Your task to perform on an android device: Open Maps and search for coffee Image 0: 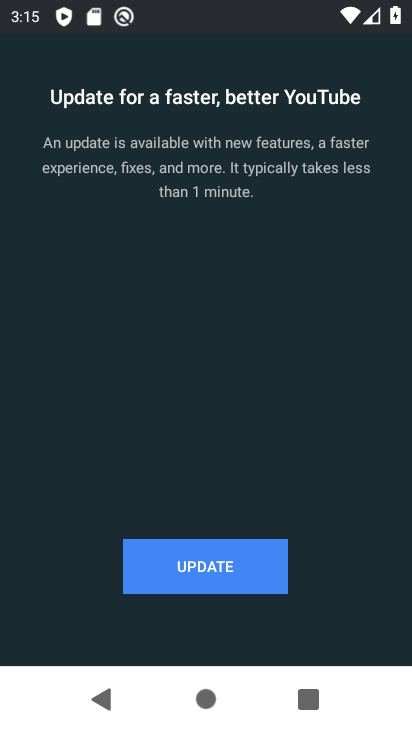
Step 0: press home button
Your task to perform on an android device: Open Maps and search for coffee Image 1: 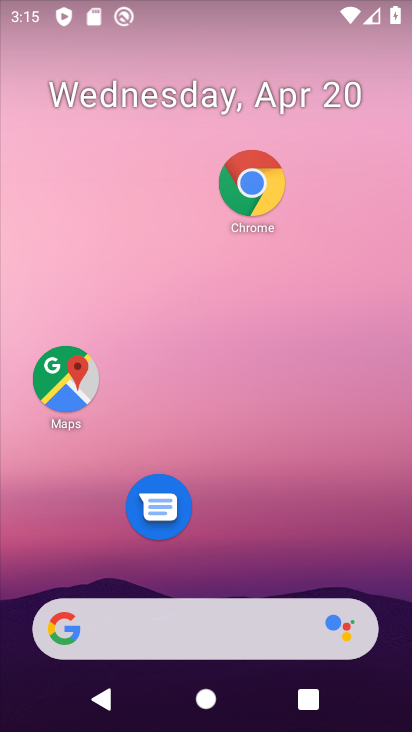
Step 1: click (86, 374)
Your task to perform on an android device: Open Maps and search for coffee Image 2: 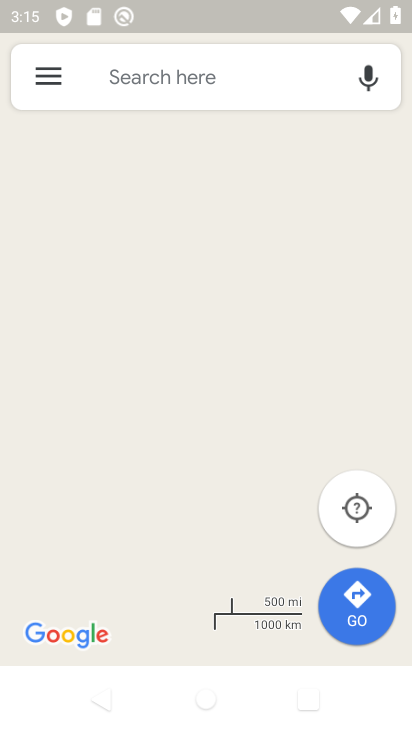
Step 2: click (196, 84)
Your task to perform on an android device: Open Maps and search for coffee Image 3: 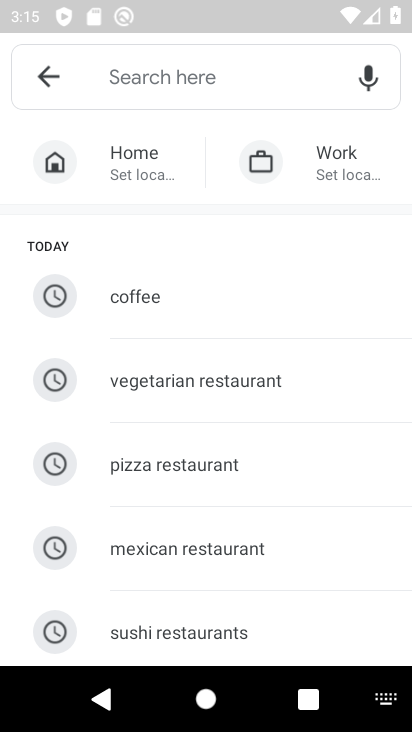
Step 3: type "coffee"
Your task to perform on an android device: Open Maps and search for coffee Image 4: 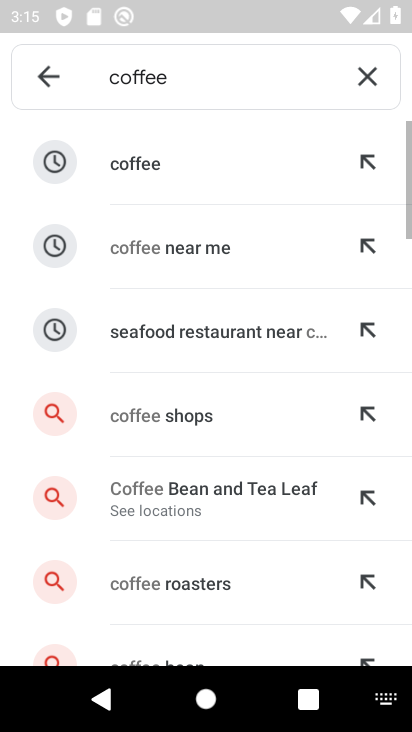
Step 4: click (152, 174)
Your task to perform on an android device: Open Maps and search for coffee Image 5: 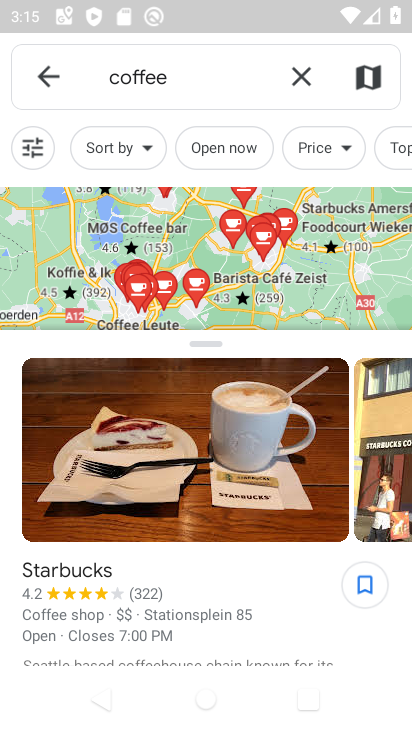
Step 5: task complete